Your task to perform on an android device: Go to Maps Image 0: 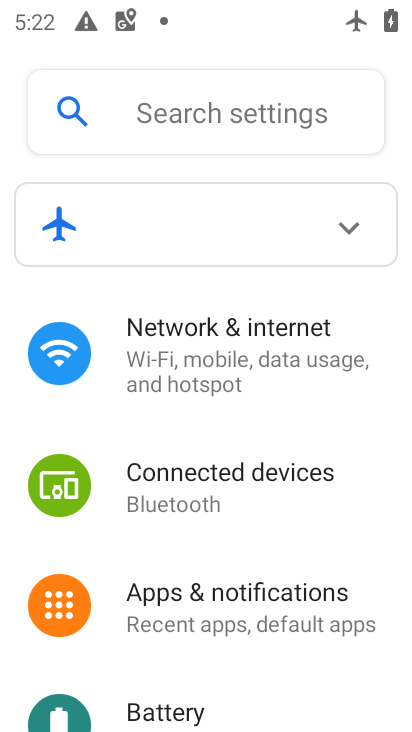
Step 0: press home button
Your task to perform on an android device: Go to Maps Image 1: 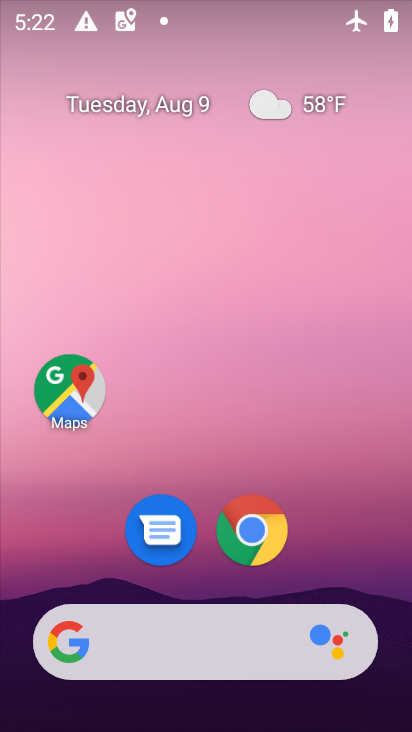
Step 1: click (69, 404)
Your task to perform on an android device: Go to Maps Image 2: 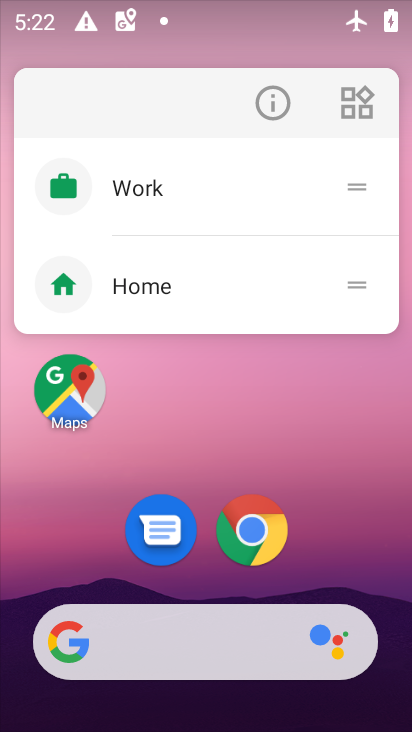
Step 2: click (112, 390)
Your task to perform on an android device: Go to Maps Image 3: 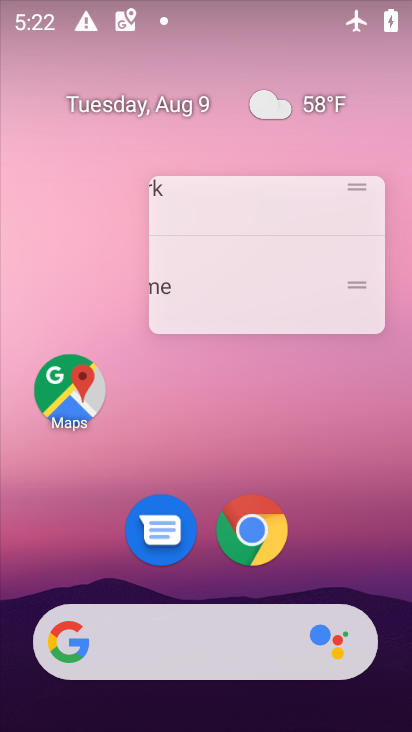
Step 3: click (110, 390)
Your task to perform on an android device: Go to Maps Image 4: 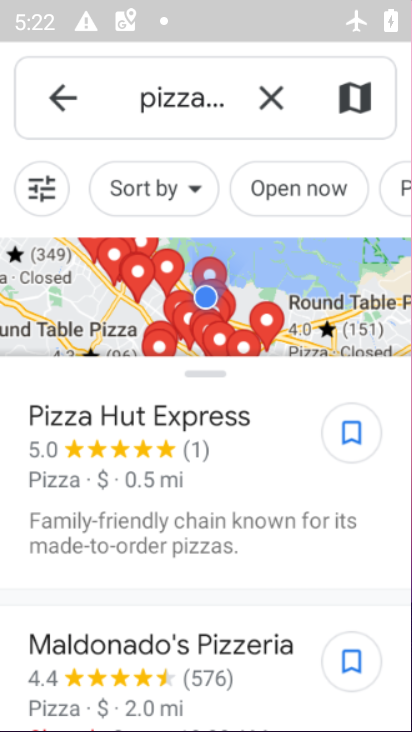
Step 4: click (34, 390)
Your task to perform on an android device: Go to Maps Image 5: 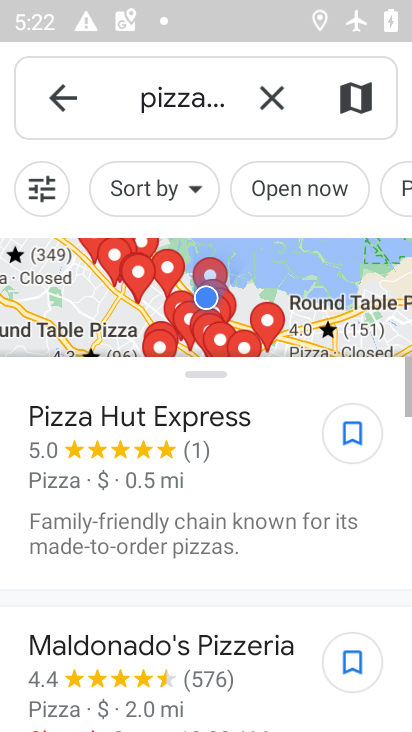
Step 5: task complete